Your task to perform on an android device: empty trash in the gmail app Image 0: 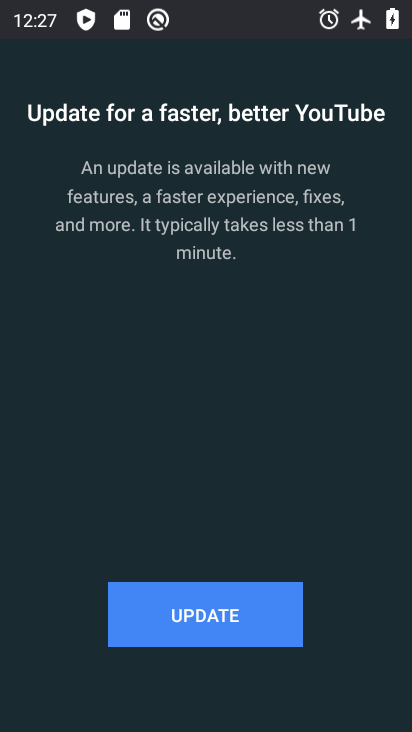
Step 0: press home button
Your task to perform on an android device: empty trash in the gmail app Image 1: 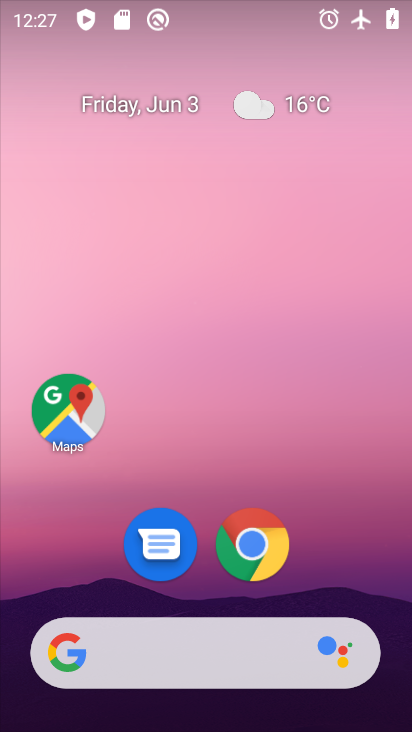
Step 1: drag from (353, 561) to (386, 108)
Your task to perform on an android device: empty trash in the gmail app Image 2: 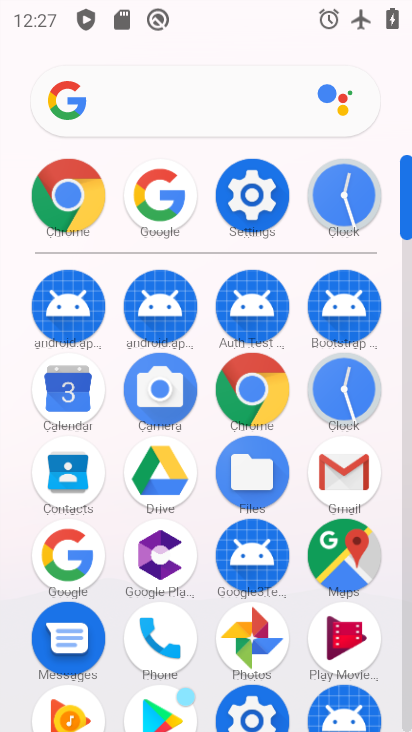
Step 2: click (351, 471)
Your task to perform on an android device: empty trash in the gmail app Image 3: 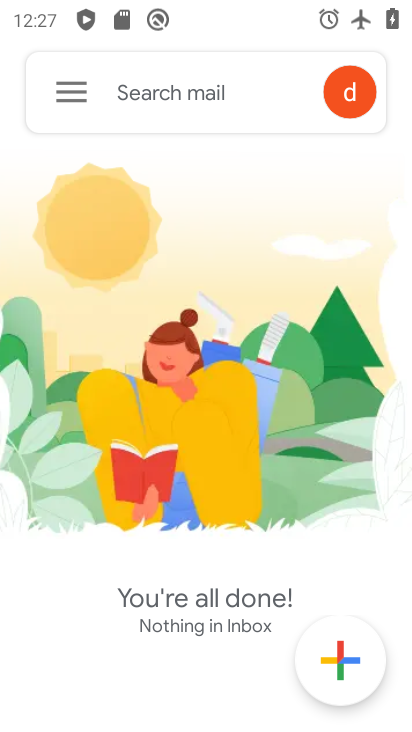
Step 3: click (57, 111)
Your task to perform on an android device: empty trash in the gmail app Image 4: 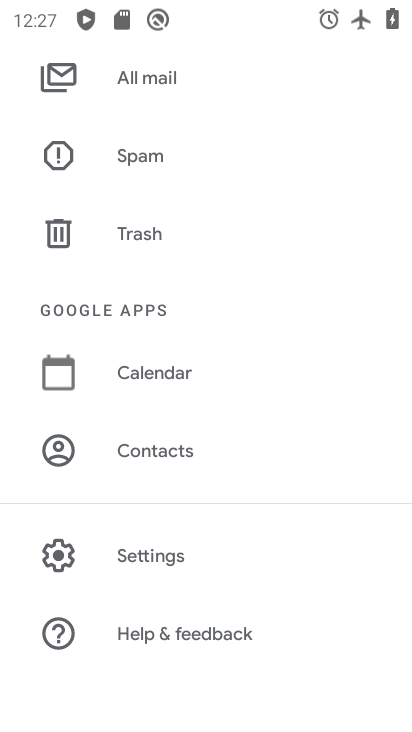
Step 4: click (172, 236)
Your task to perform on an android device: empty trash in the gmail app Image 5: 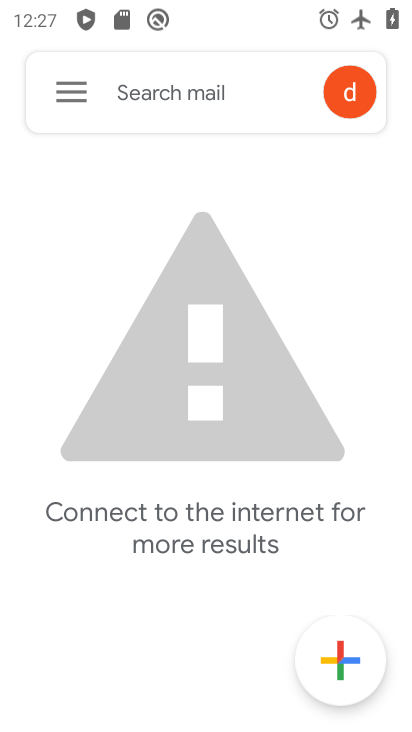
Step 5: task complete